Your task to perform on an android device: manage bookmarks in the chrome app Image 0: 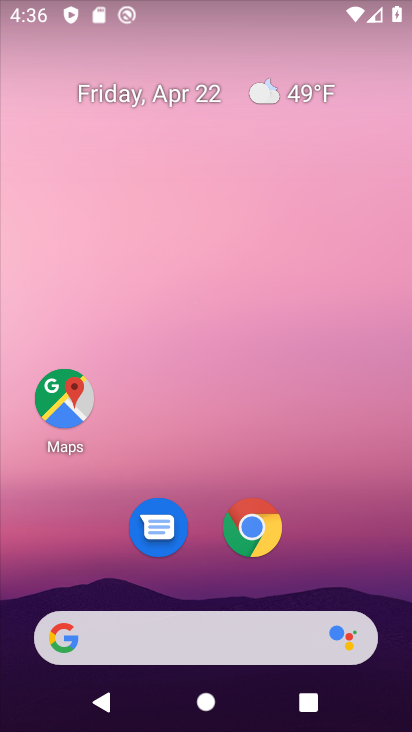
Step 0: drag from (243, 698) to (100, 83)
Your task to perform on an android device: manage bookmarks in the chrome app Image 1: 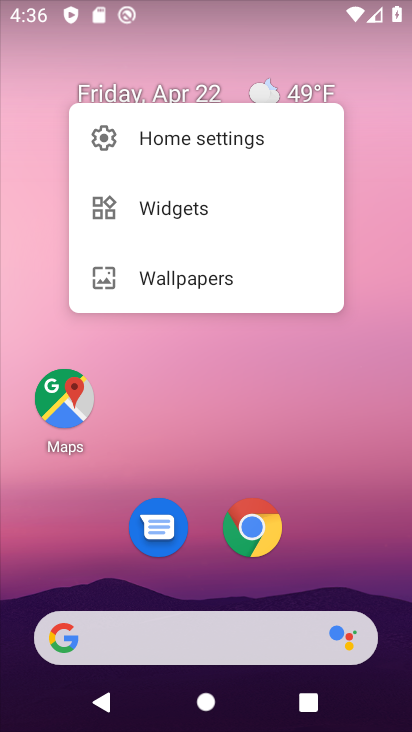
Step 1: drag from (278, 626) to (172, 142)
Your task to perform on an android device: manage bookmarks in the chrome app Image 2: 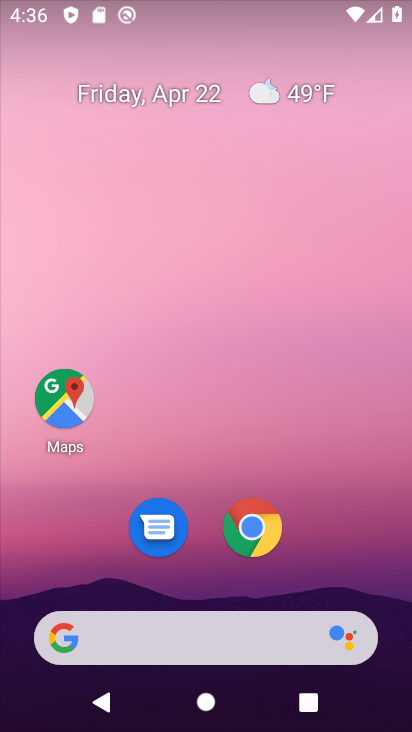
Step 2: drag from (131, 182) to (105, 42)
Your task to perform on an android device: manage bookmarks in the chrome app Image 3: 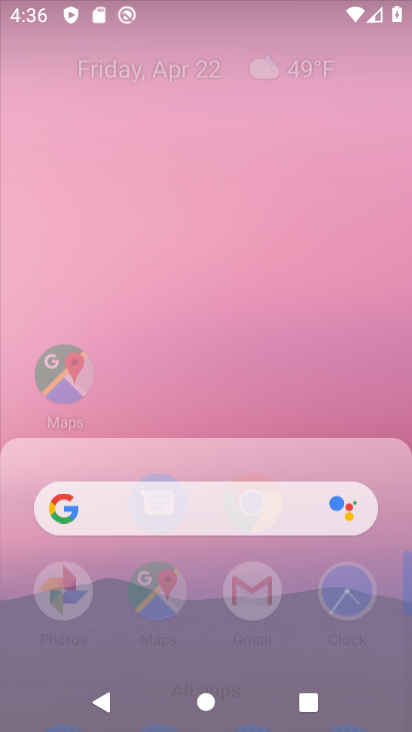
Step 3: drag from (197, 10) to (137, 10)
Your task to perform on an android device: manage bookmarks in the chrome app Image 4: 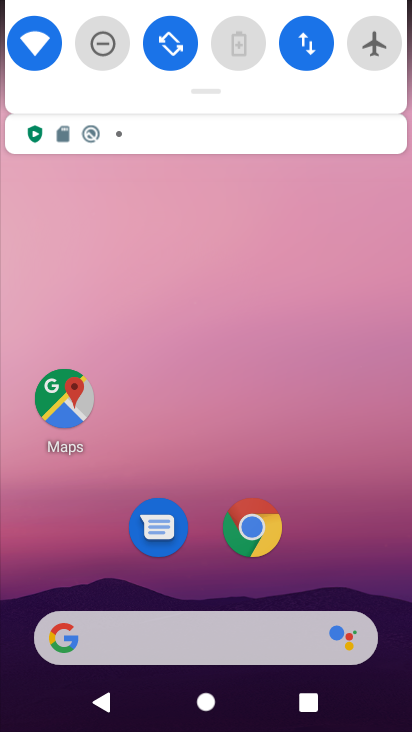
Step 4: drag from (216, 68) to (199, 19)
Your task to perform on an android device: manage bookmarks in the chrome app Image 5: 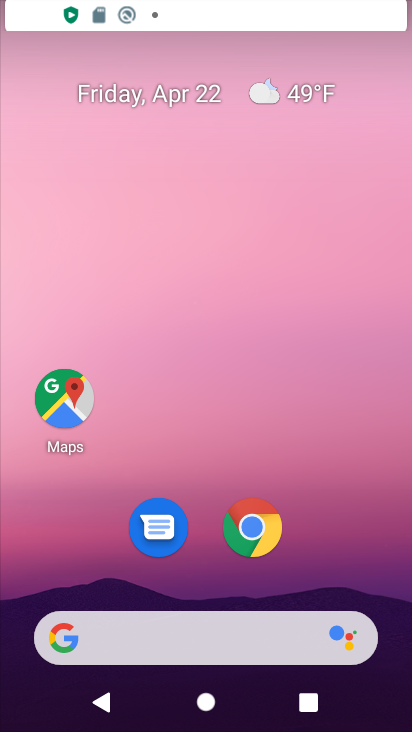
Step 5: drag from (125, 64) to (154, 86)
Your task to perform on an android device: manage bookmarks in the chrome app Image 6: 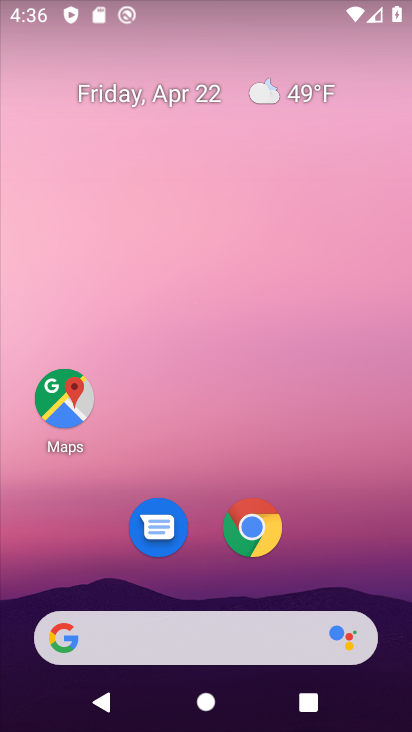
Step 6: drag from (242, 416) to (126, 66)
Your task to perform on an android device: manage bookmarks in the chrome app Image 7: 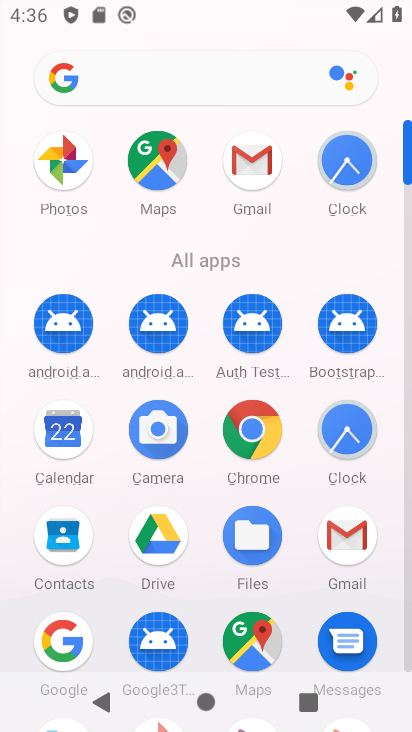
Step 7: drag from (113, 174) to (130, 17)
Your task to perform on an android device: manage bookmarks in the chrome app Image 8: 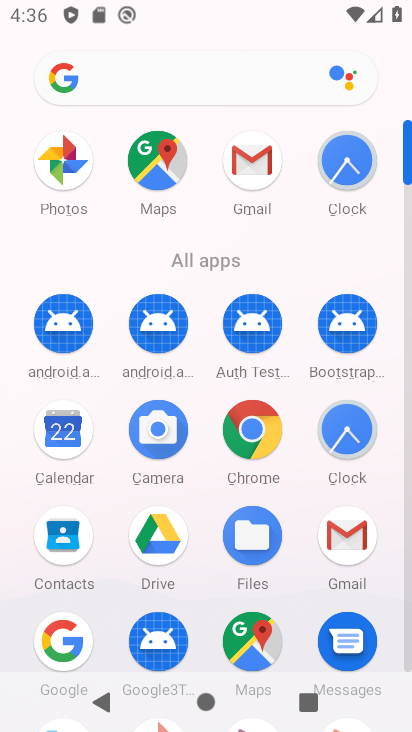
Step 8: drag from (247, 238) to (198, 11)
Your task to perform on an android device: manage bookmarks in the chrome app Image 9: 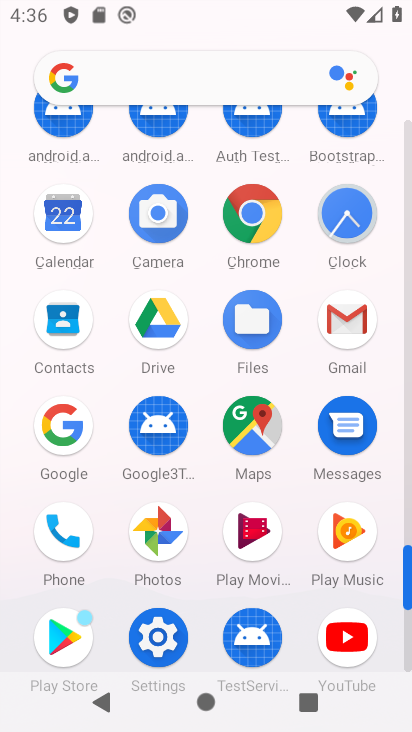
Step 9: click (248, 218)
Your task to perform on an android device: manage bookmarks in the chrome app Image 10: 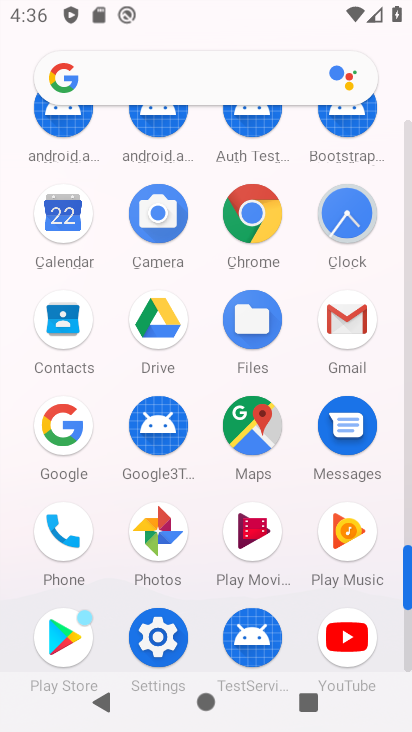
Step 10: click (248, 218)
Your task to perform on an android device: manage bookmarks in the chrome app Image 11: 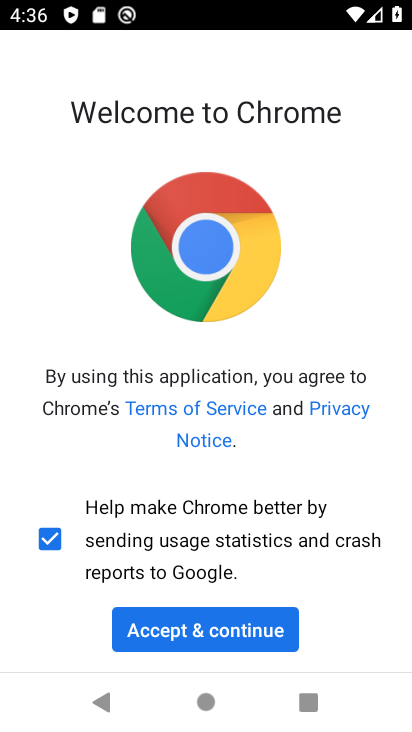
Step 11: click (217, 628)
Your task to perform on an android device: manage bookmarks in the chrome app Image 12: 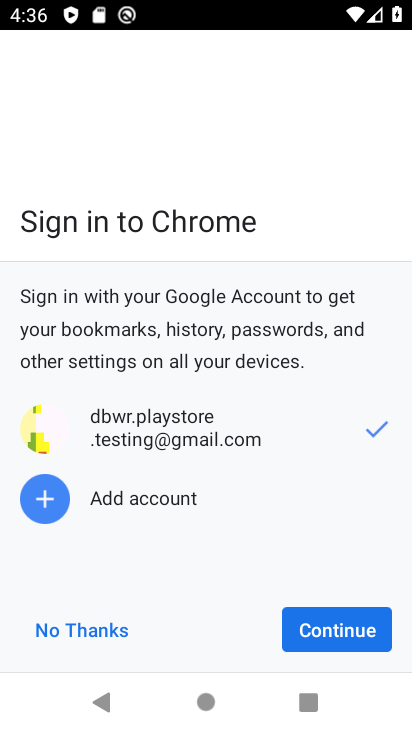
Step 12: click (338, 628)
Your task to perform on an android device: manage bookmarks in the chrome app Image 13: 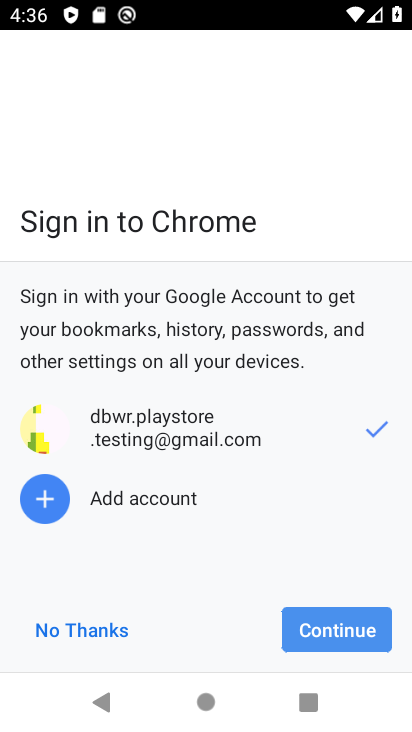
Step 13: click (342, 627)
Your task to perform on an android device: manage bookmarks in the chrome app Image 14: 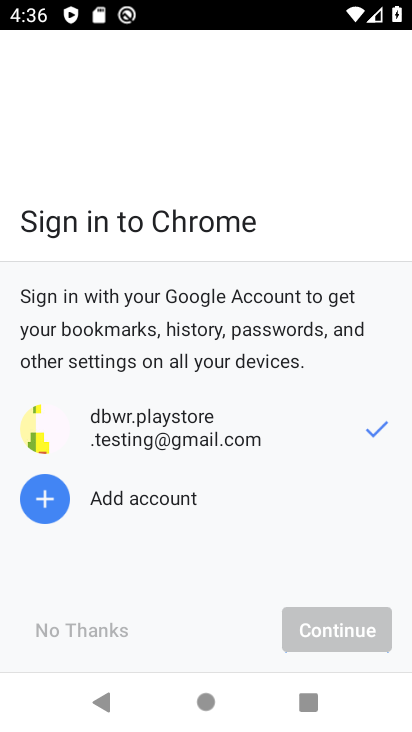
Step 14: click (341, 627)
Your task to perform on an android device: manage bookmarks in the chrome app Image 15: 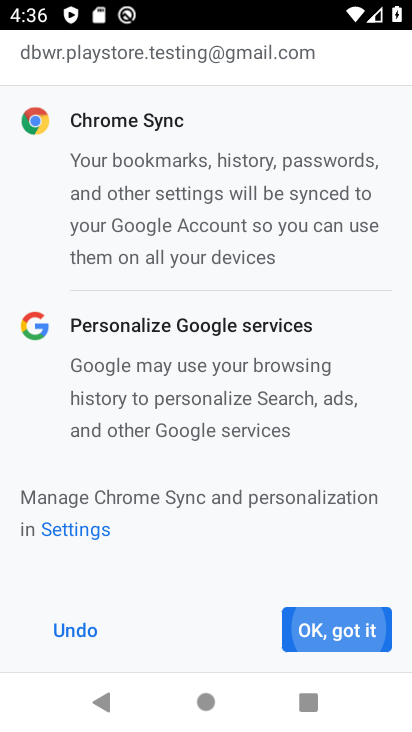
Step 15: click (341, 627)
Your task to perform on an android device: manage bookmarks in the chrome app Image 16: 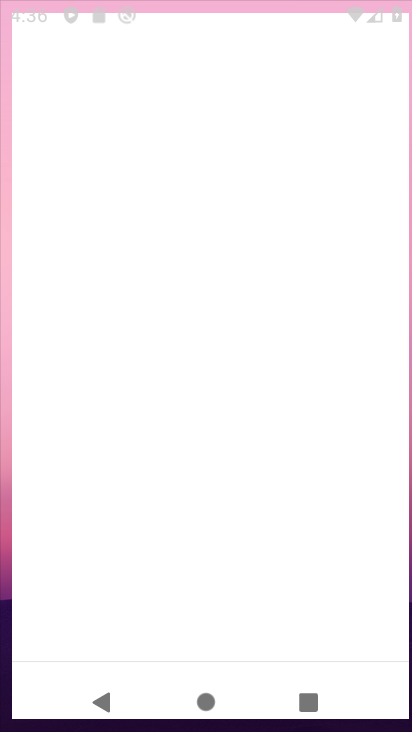
Step 16: click (341, 627)
Your task to perform on an android device: manage bookmarks in the chrome app Image 17: 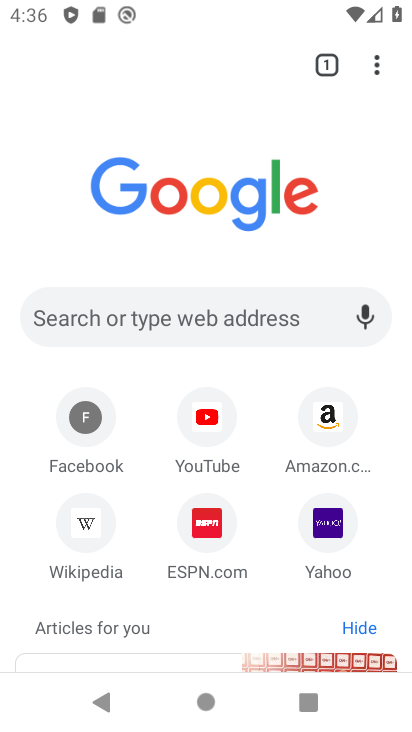
Step 17: drag from (375, 58) to (161, 261)
Your task to perform on an android device: manage bookmarks in the chrome app Image 18: 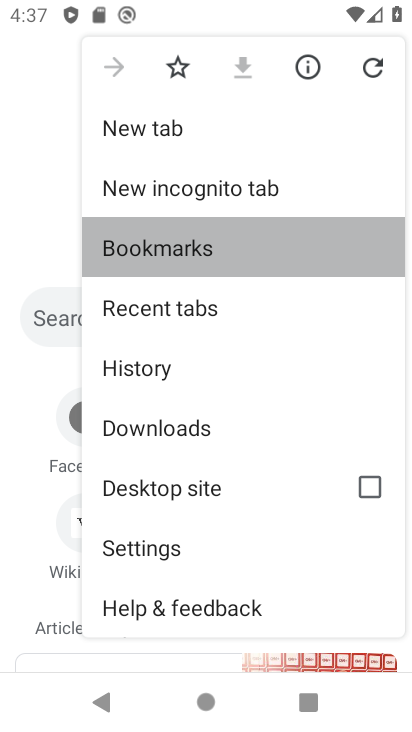
Step 18: click (162, 261)
Your task to perform on an android device: manage bookmarks in the chrome app Image 19: 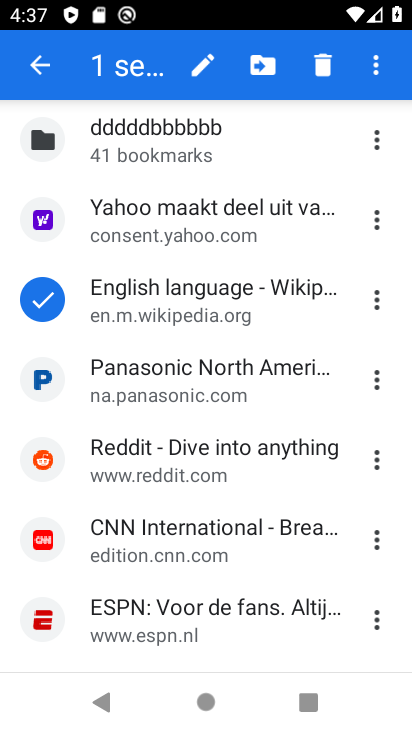
Step 19: click (39, 305)
Your task to perform on an android device: manage bookmarks in the chrome app Image 20: 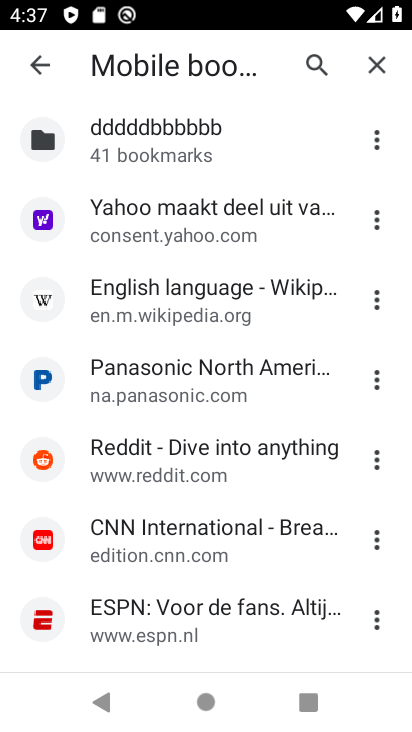
Step 20: click (379, 139)
Your task to perform on an android device: manage bookmarks in the chrome app Image 21: 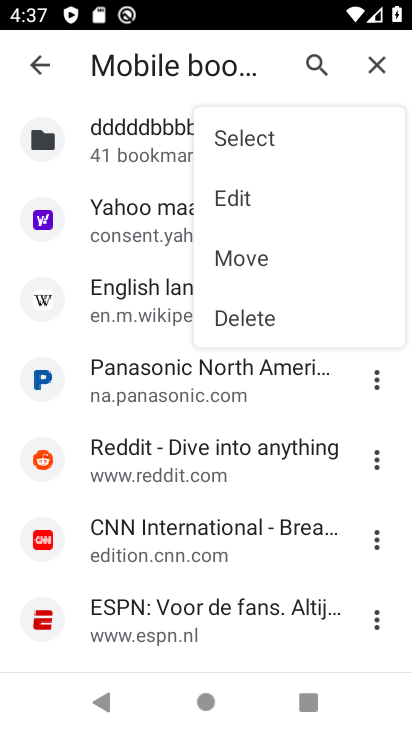
Step 21: click (249, 321)
Your task to perform on an android device: manage bookmarks in the chrome app Image 22: 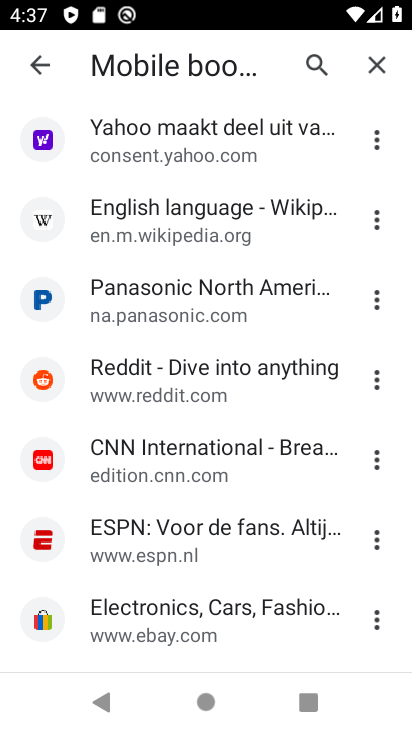
Step 22: task complete